Your task to perform on an android device: Open Android settings Image 0: 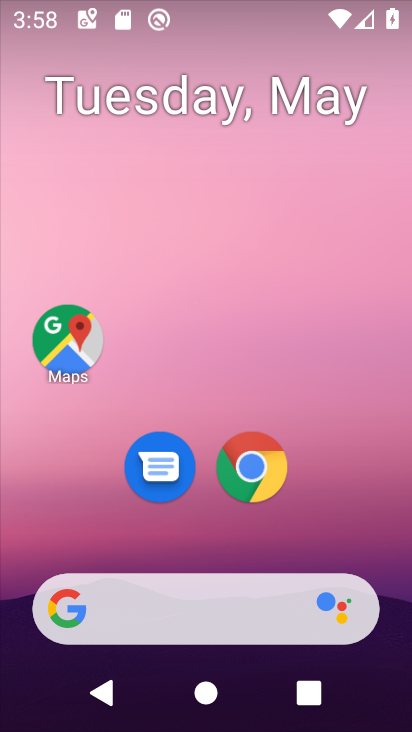
Step 0: drag from (216, 581) to (106, 83)
Your task to perform on an android device: Open Android settings Image 1: 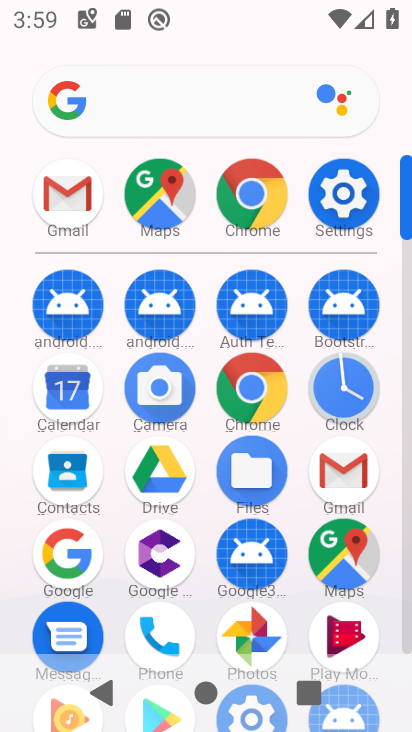
Step 1: click (332, 200)
Your task to perform on an android device: Open Android settings Image 2: 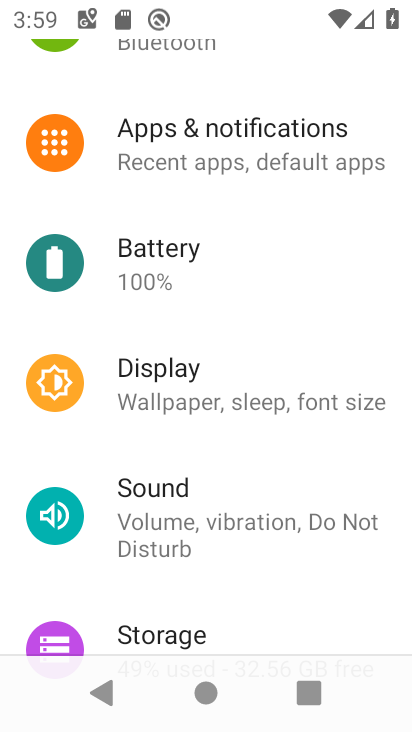
Step 2: drag from (160, 623) to (102, 213)
Your task to perform on an android device: Open Android settings Image 3: 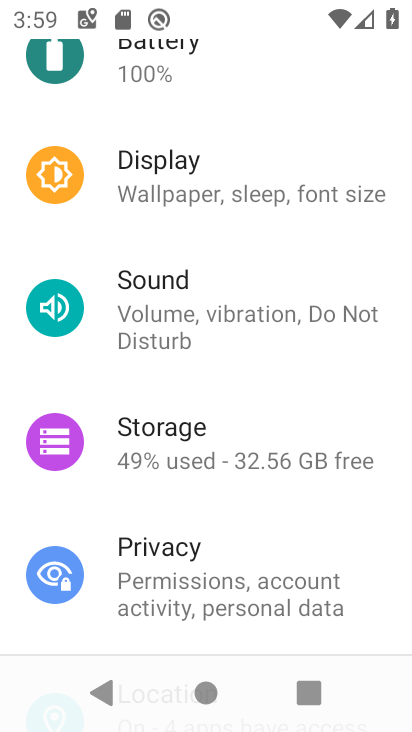
Step 3: drag from (192, 496) to (168, 169)
Your task to perform on an android device: Open Android settings Image 4: 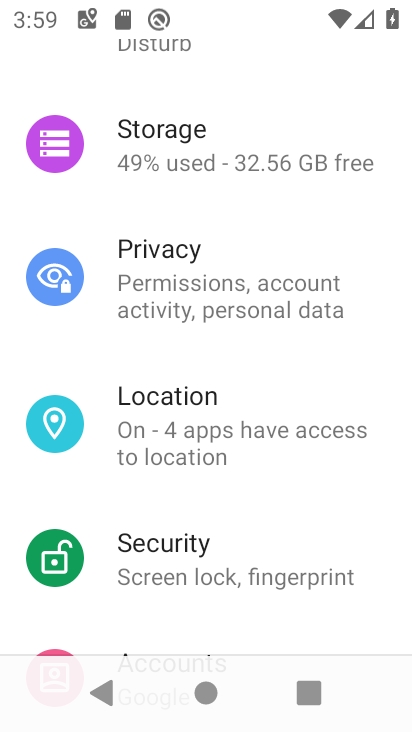
Step 4: drag from (222, 558) to (207, 254)
Your task to perform on an android device: Open Android settings Image 5: 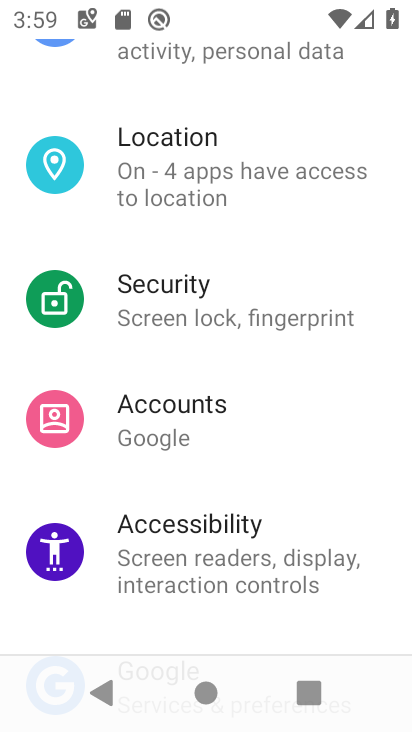
Step 5: drag from (198, 389) to (182, 120)
Your task to perform on an android device: Open Android settings Image 6: 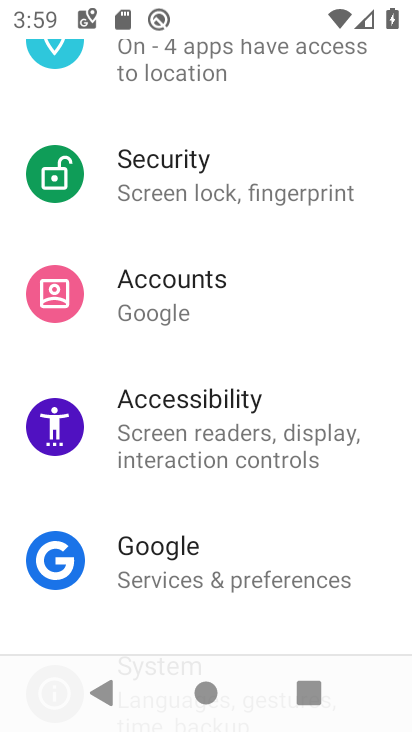
Step 6: drag from (132, 530) to (133, 218)
Your task to perform on an android device: Open Android settings Image 7: 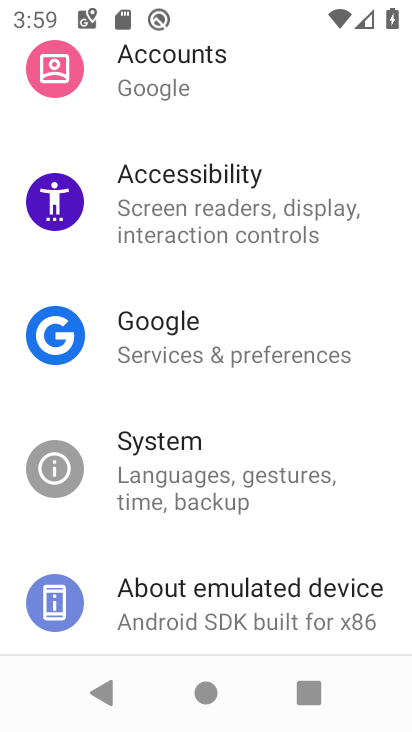
Step 7: click (243, 602)
Your task to perform on an android device: Open Android settings Image 8: 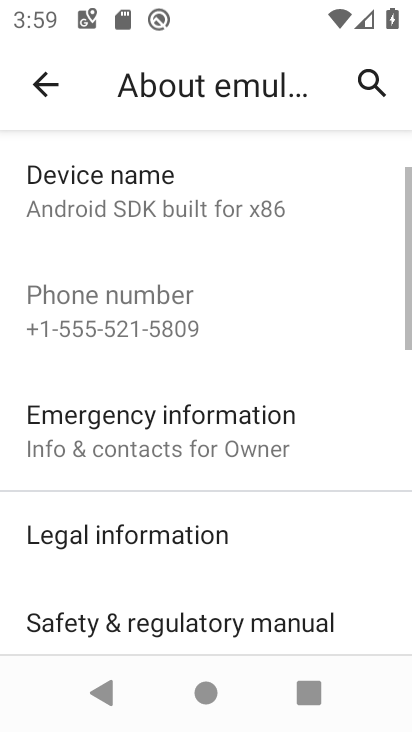
Step 8: click (309, 125)
Your task to perform on an android device: Open Android settings Image 9: 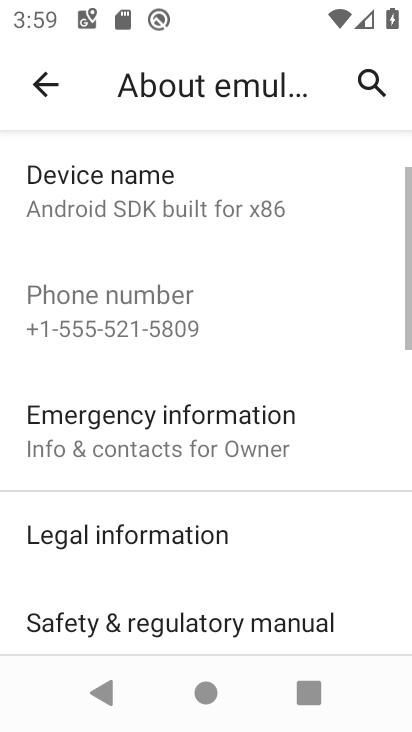
Step 9: drag from (267, 555) to (285, 157)
Your task to perform on an android device: Open Android settings Image 10: 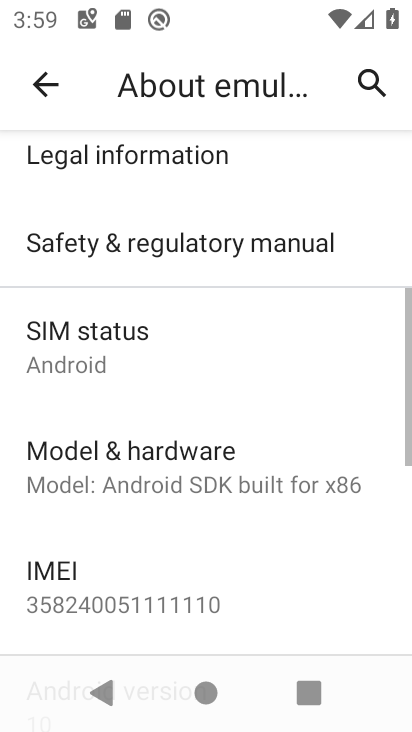
Step 10: drag from (149, 576) to (154, 80)
Your task to perform on an android device: Open Android settings Image 11: 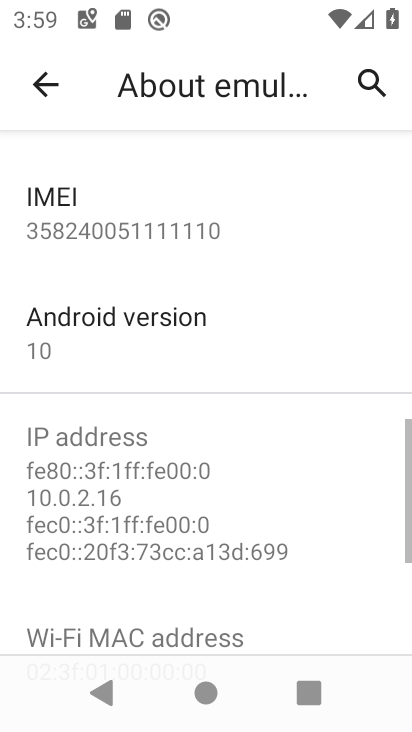
Step 11: click (91, 343)
Your task to perform on an android device: Open Android settings Image 12: 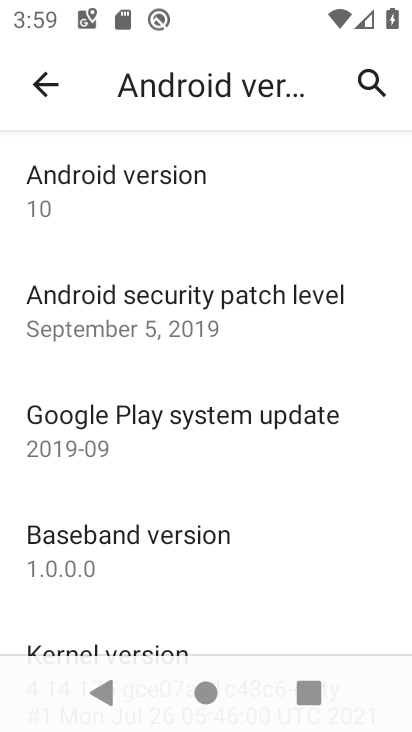
Step 12: task complete